Your task to perform on an android device: turn off airplane mode Image 0: 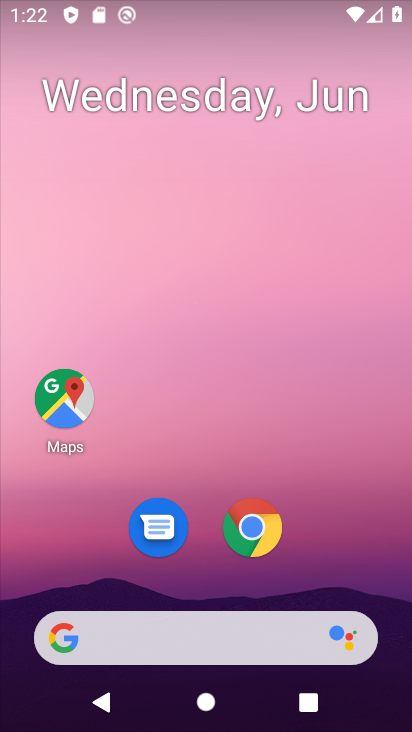
Step 0: drag from (372, 545) to (262, 225)
Your task to perform on an android device: turn off airplane mode Image 1: 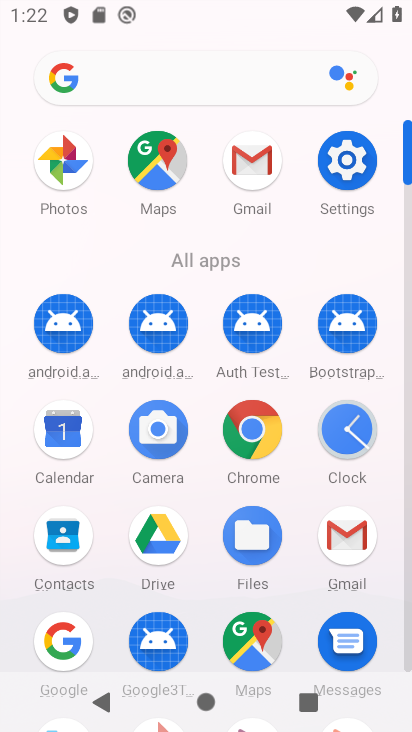
Step 1: click (359, 161)
Your task to perform on an android device: turn off airplane mode Image 2: 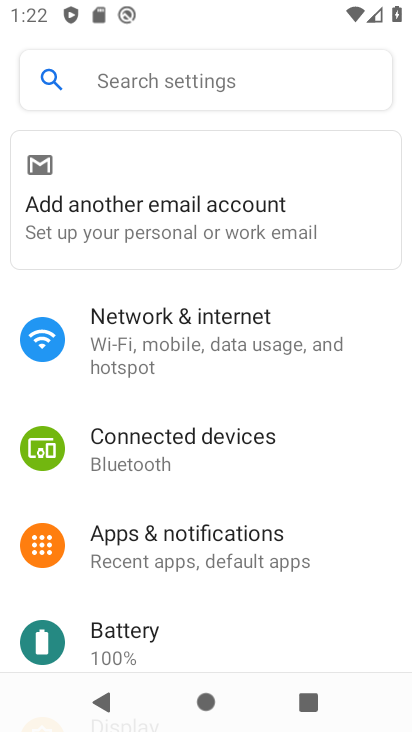
Step 2: drag from (185, 592) to (182, 473)
Your task to perform on an android device: turn off airplane mode Image 3: 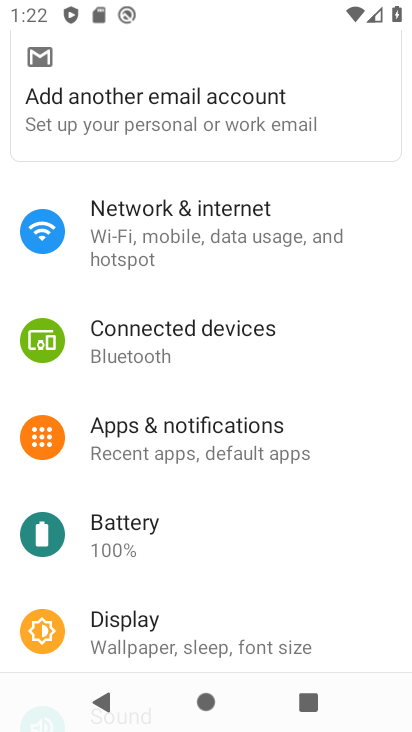
Step 3: click (221, 229)
Your task to perform on an android device: turn off airplane mode Image 4: 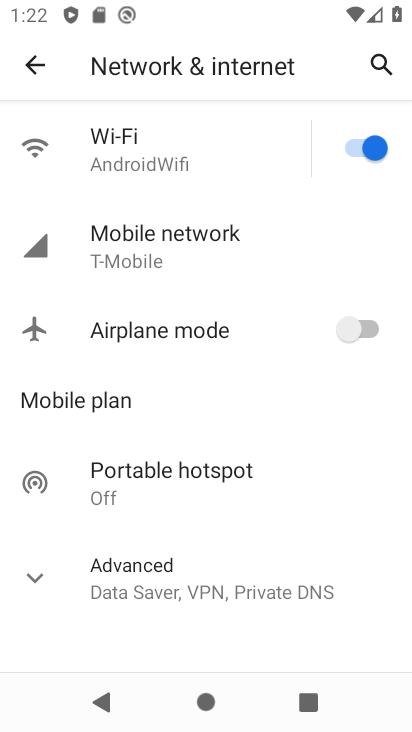
Step 4: task complete